Your task to perform on an android device: all mails in gmail Image 0: 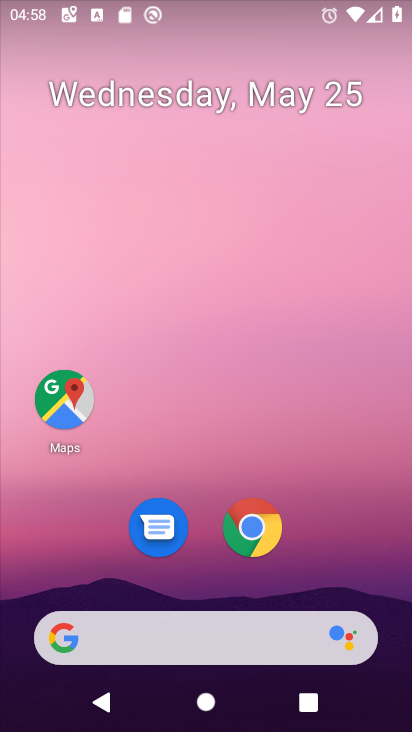
Step 0: drag from (217, 509) to (269, 23)
Your task to perform on an android device: all mails in gmail Image 1: 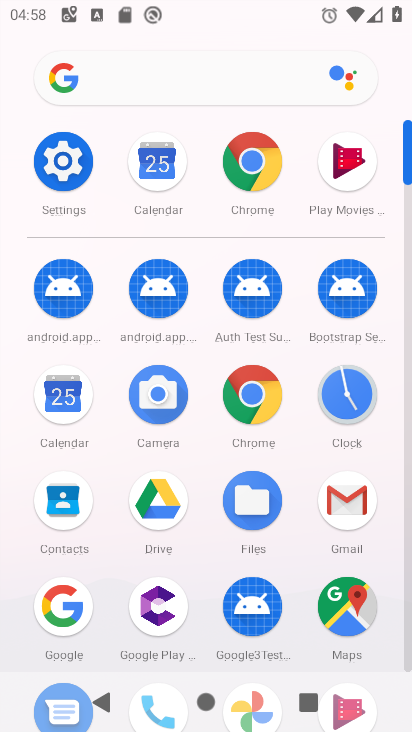
Step 1: click (343, 507)
Your task to perform on an android device: all mails in gmail Image 2: 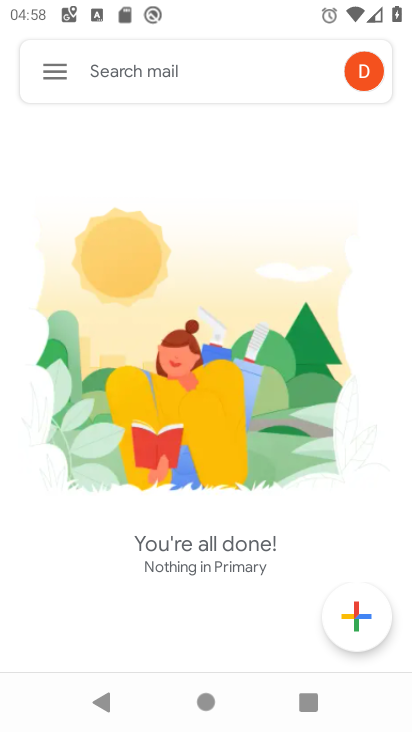
Step 2: click (50, 64)
Your task to perform on an android device: all mails in gmail Image 3: 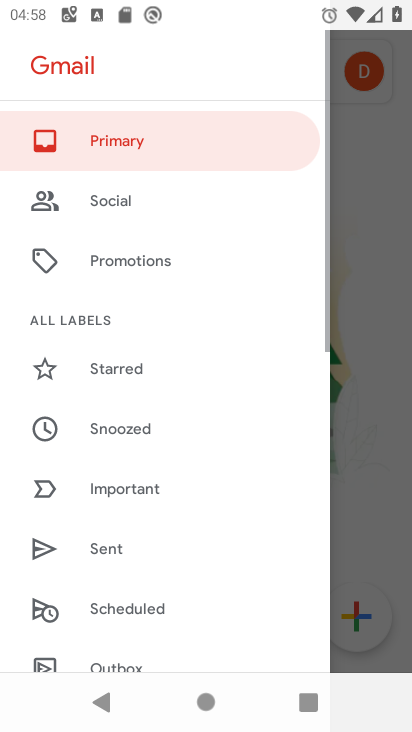
Step 3: drag from (202, 555) to (242, 269)
Your task to perform on an android device: all mails in gmail Image 4: 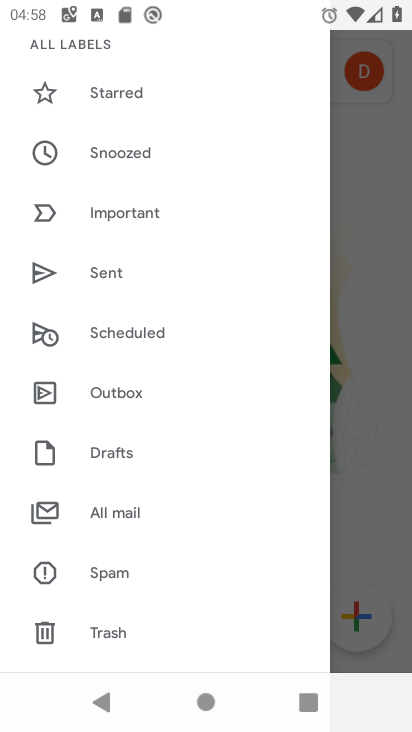
Step 4: click (116, 514)
Your task to perform on an android device: all mails in gmail Image 5: 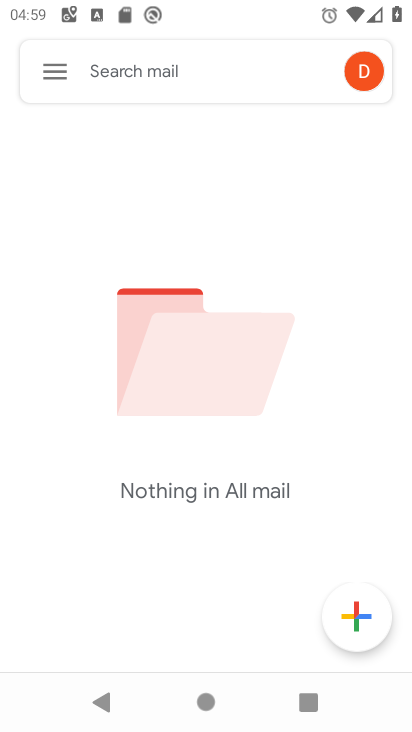
Step 5: task complete